Your task to perform on an android device: check battery use Image 0: 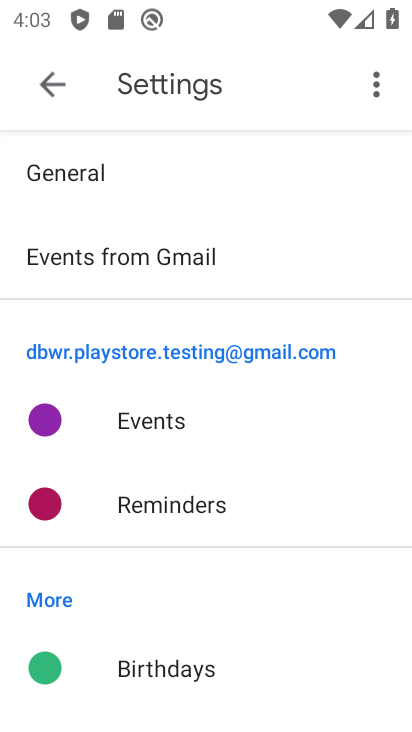
Step 0: press home button
Your task to perform on an android device: check battery use Image 1: 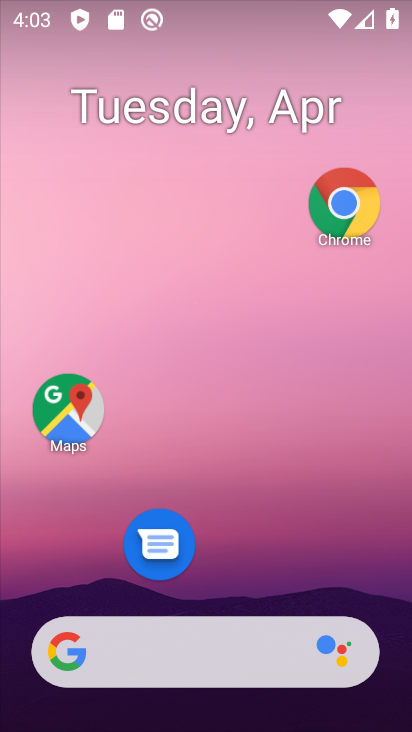
Step 1: drag from (247, 461) to (309, 37)
Your task to perform on an android device: check battery use Image 2: 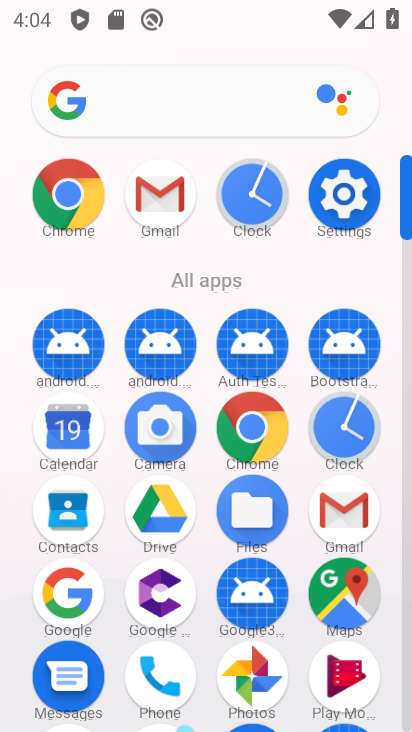
Step 2: click (350, 205)
Your task to perform on an android device: check battery use Image 3: 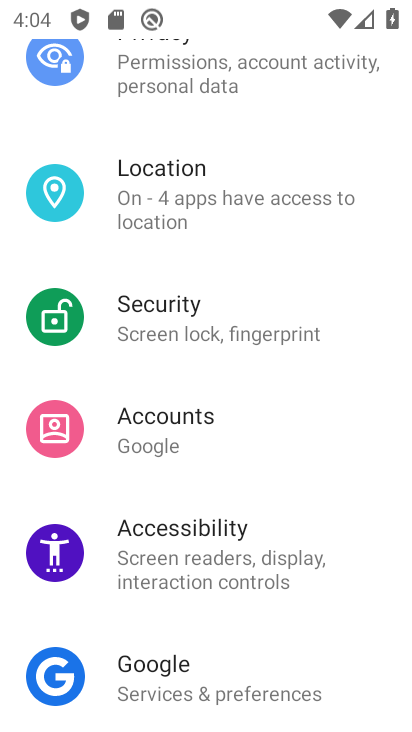
Step 3: drag from (212, 211) to (178, 643)
Your task to perform on an android device: check battery use Image 4: 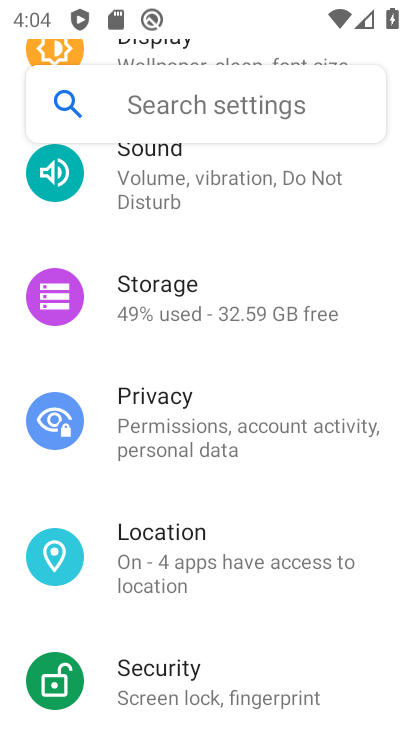
Step 4: drag from (226, 350) to (260, 576)
Your task to perform on an android device: check battery use Image 5: 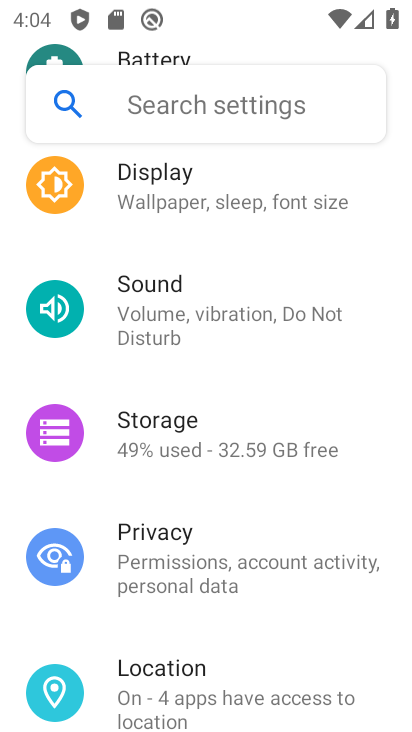
Step 5: drag from (231, 561) to (268, 687)
Your task to perform on an android device: check battery use Image 6: 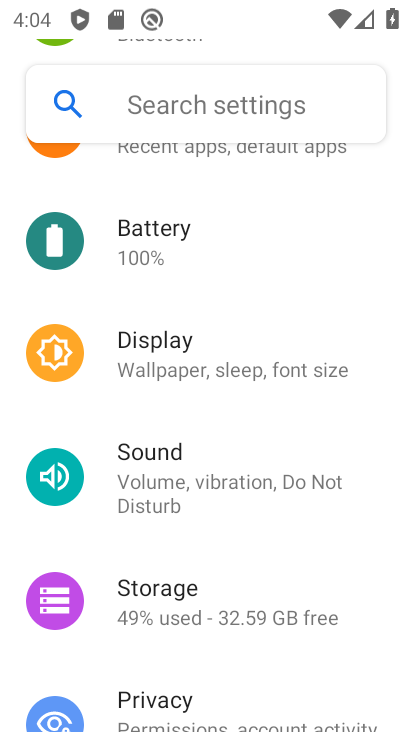
Step 6: drag from (219, 246) to (281, 727)
Your task to perform on an android device: check battery use Image 7: 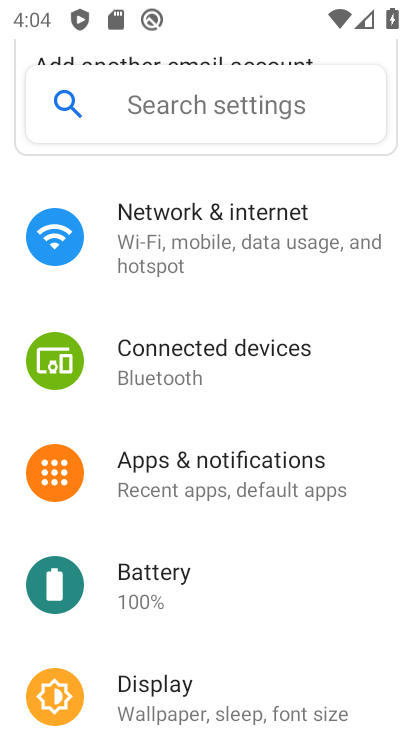
Step 7: click (180, 586)
Your task to perform on an android device: check battery use Image 8: 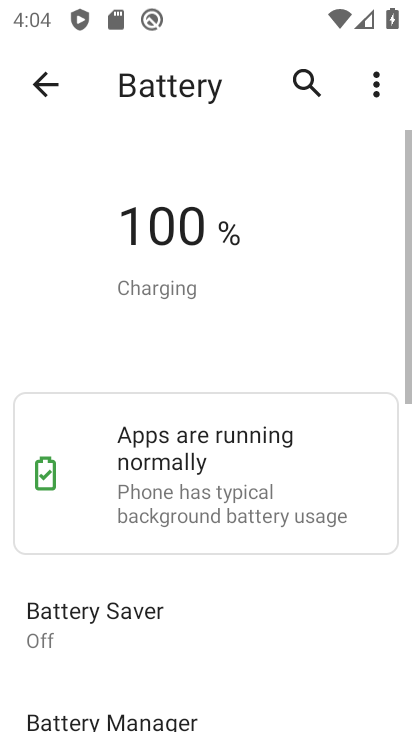
Step 8: click (384, 82)
Your task to perform on an android device: check battery use Image 9: 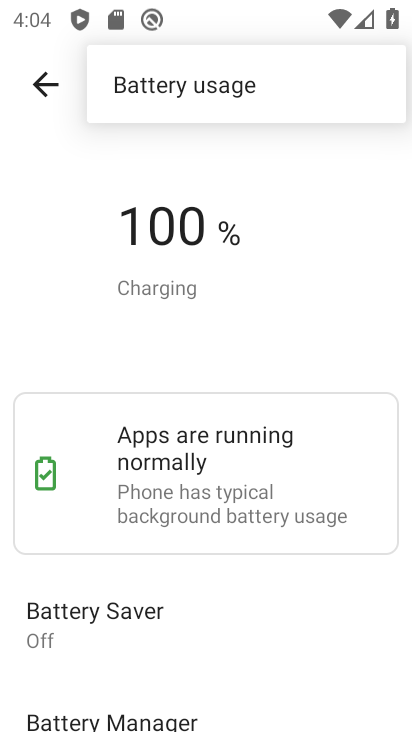
Step 9: click (265, 100)
Your task to perform on an android device: check battery use Image 10: 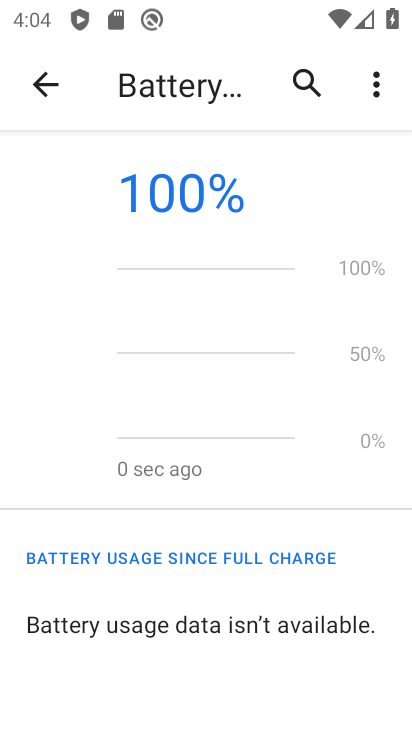
Step 10: task complete